Your task to perform on an android device: toggle javascript in the chrome app Image 0: 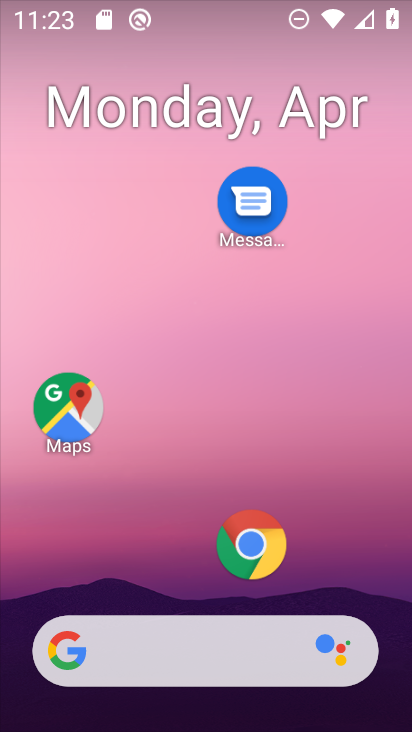
Step 0: press home button
Your task to perform on an android device: toggle javascript in the chrome app Image 1: 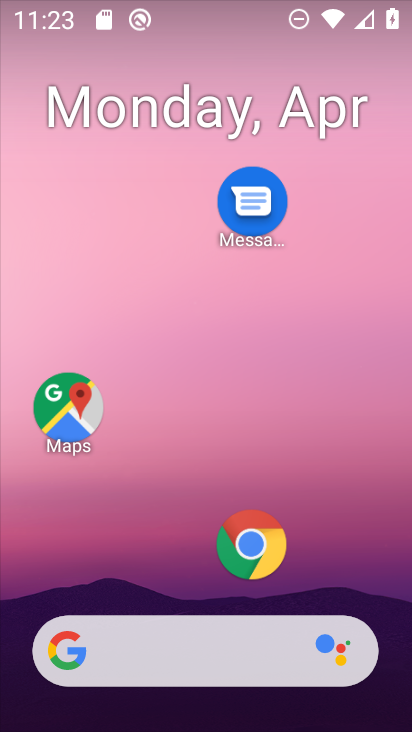
Step 1: drag from (175, 537) to (196, 42)
Your task to perform on an android device: toggle javascript in the chrome app Image 2: 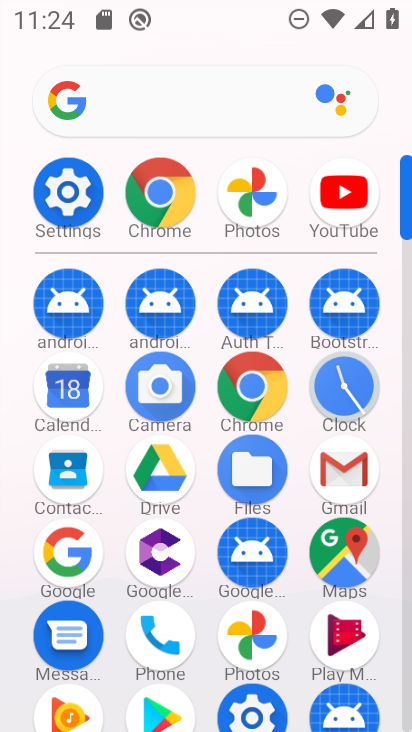
Step 2: click (248, 381)
Your task to perform on an android device: toggle javascript in the chrome app Image 3: 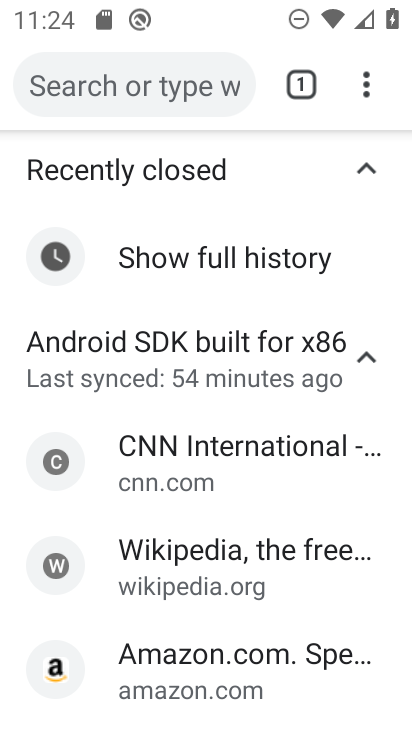
Step 3: click (372, 78)
Your task to perform on an android device: toggle javascript in the chrome app Image 4: 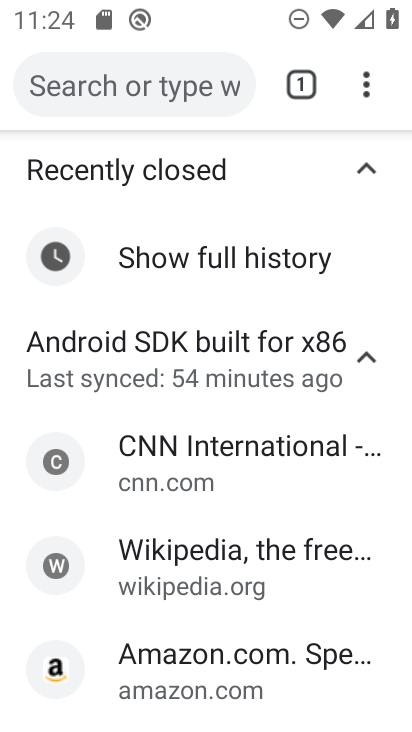
Step 4: click (362, 85)
Your task to perform on an android device: toggle javascript in the chrome app Image 5: 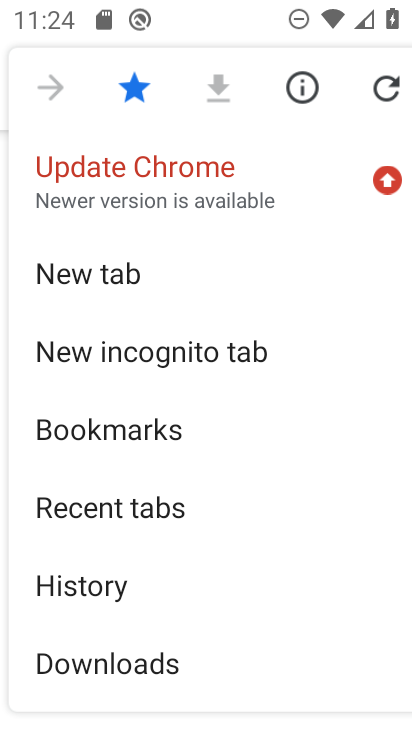
Step 5: drag from (222, 641) to (266, 175)
Your task to perform on an android device: toggle javascript in the chrome app Image 6: 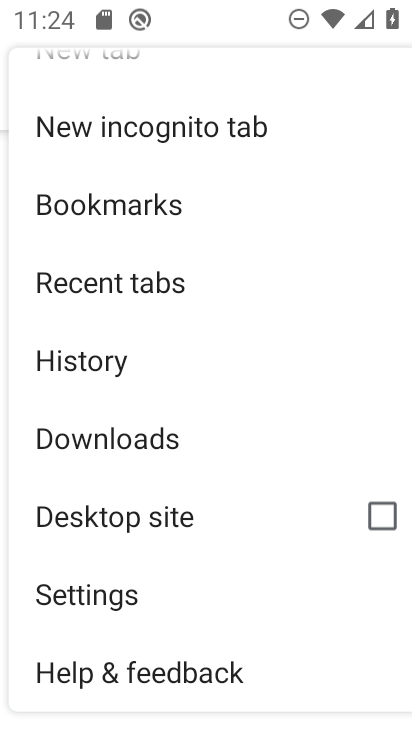
Step 6: click (147, 583)
Your task to perform on an android device: toggle javascript in the chrome app Image 7: 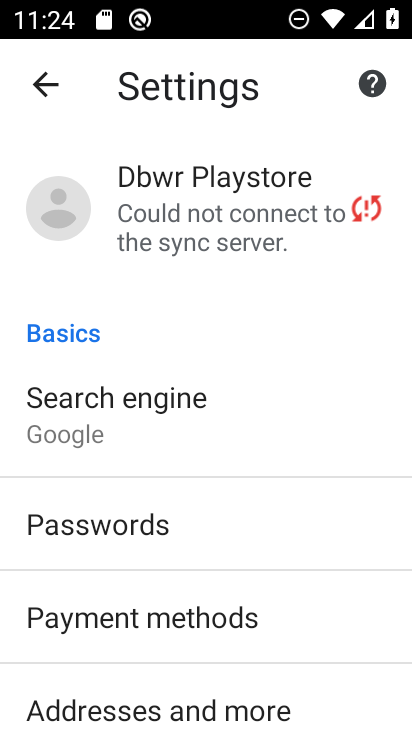
Step 7: drag from (199, 657) to (218, 287)
Your task to perform on an android device: toggle javascript in the chrome app Image 8: 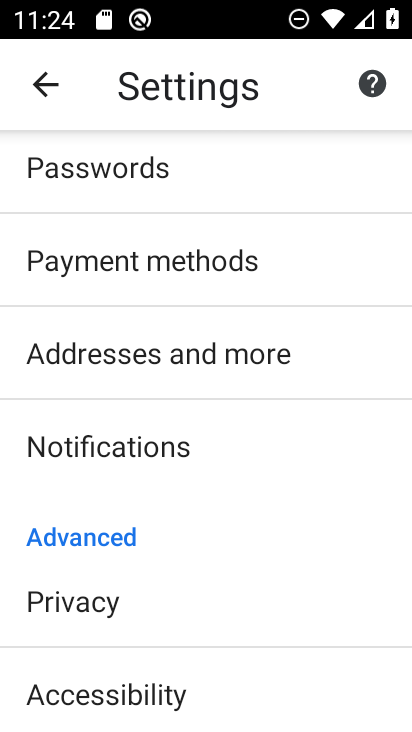
Step 8: drag from (197, 653) to (228, 199)
Your task to perform on an android device: toggle javascript in the chrome app Image 9: 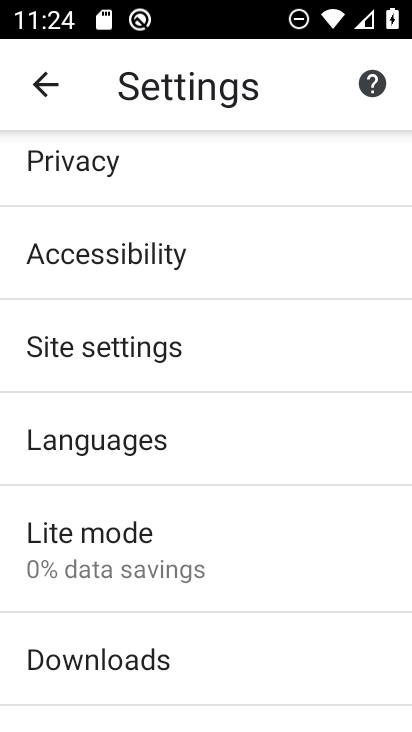
Step 9: click (186, 348)
Your task to perform on an android device: toggle javascript in the chrome app Image 10: 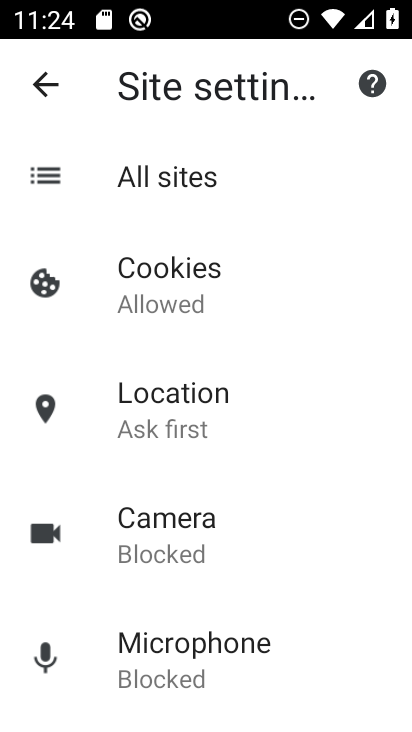
Step 10: drag from (238, 625) to (254, 282)
Your task to perform on an android device: toggle javascript in the chrome app Image 11: 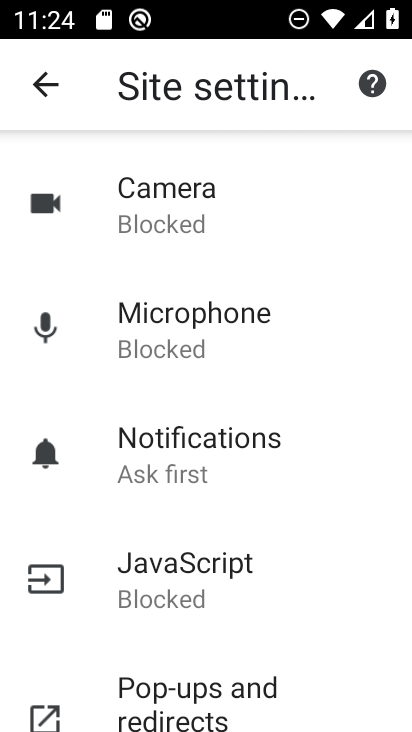
Step 11: click (229, 573)
Your task to perform on an android device: toggle javascript in the chrome app Image 12: 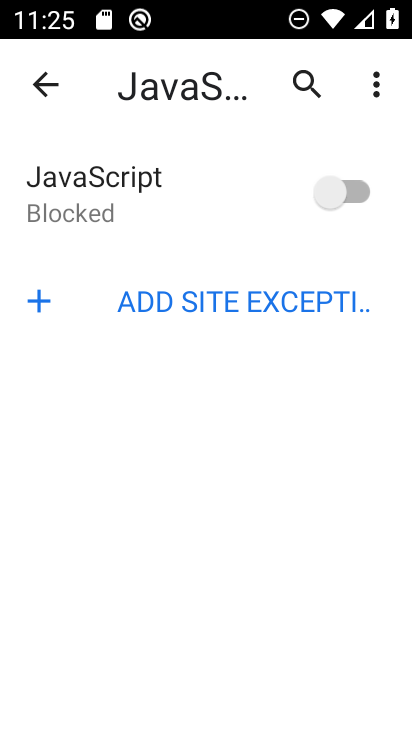
Step 12: click (342, 184)
Your task to perform on an android device: toggle javascript in the chrome app Image 13: 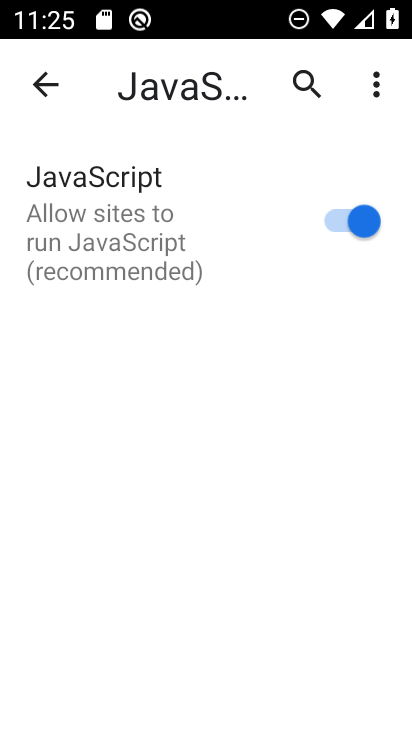
Step 13: task complete